Your task to perform on an android device: Open the calendar and show me this week's events? Image 0: 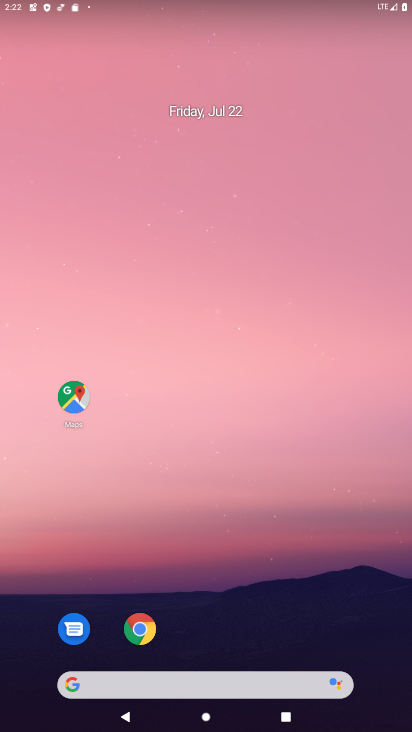
Step 0: drag from (198, 680) to (146, 94)
Your task to perform on an android device: Open the calendar and show me this week's events? Image 1: 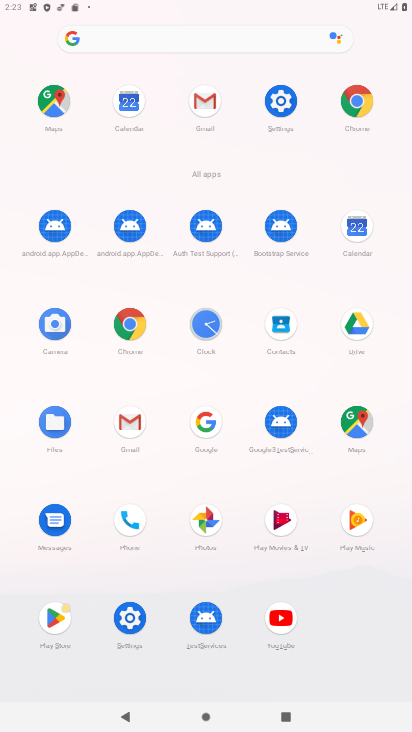
Step 1: click (369, 206)
Your task to perform on an android device: Open the calendar and show me this week's events? Image 2: 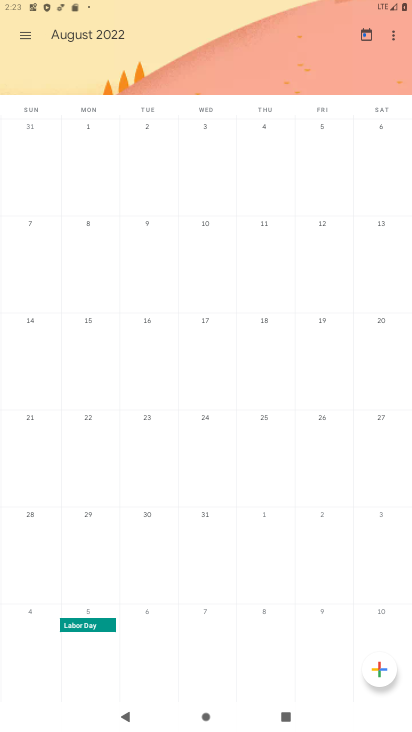
Step 2: drag from (26, 353) to (411, 401)
Your task to perform on an android device: Open the calendar and show me this week's events? Image 3: 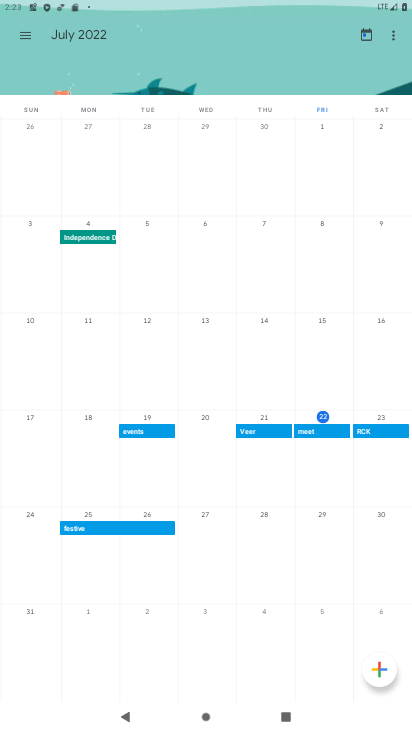
Step 3: click (28, 37)
Your task to perform on an android device: Open the calendar and show me this week's events? Image 4: 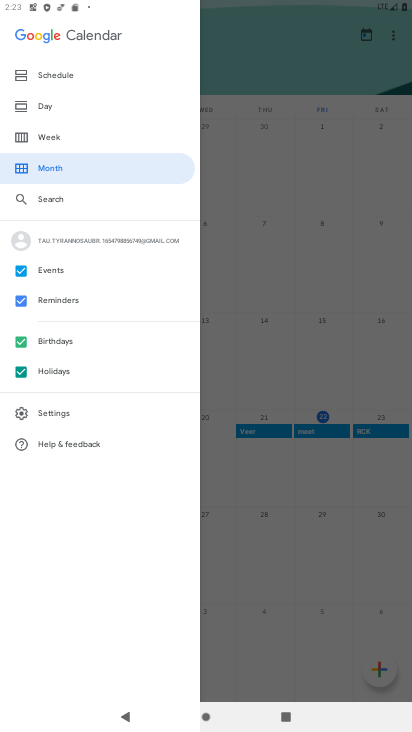
Step 4: click (50, 134)
Your task to perform on an android device: Open the calendar and show me this week's events? Image 5: 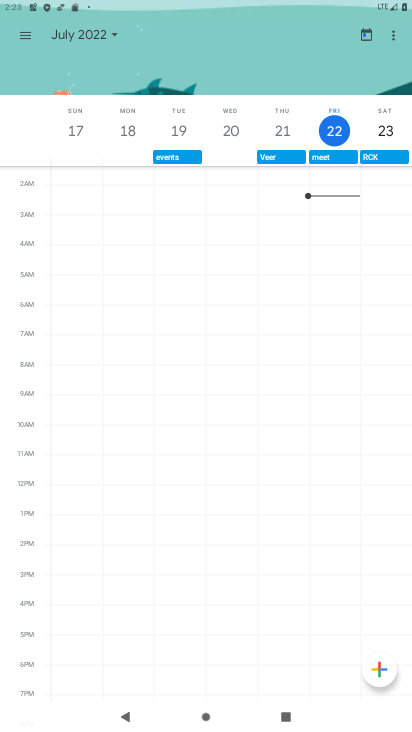
Step 5: task complete